Your task to perform on an android device: turn on priority inbox in the gmail app Image 0: 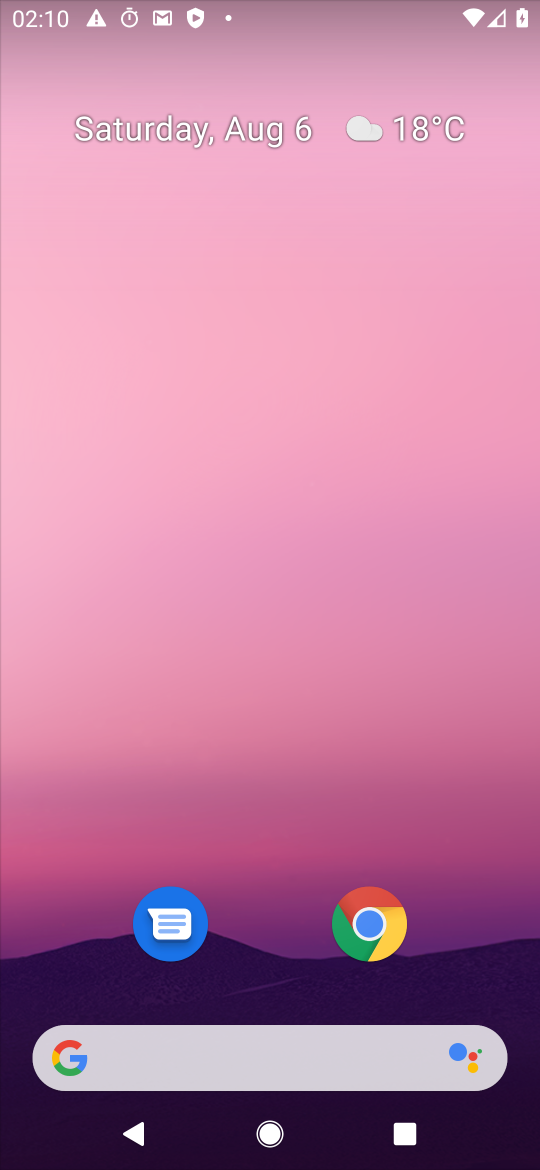
Step 0: drag from (320, 1047) to (464, 84)
Your task to perform on an android device: turn on priority inbox in the gmail app Image 1: 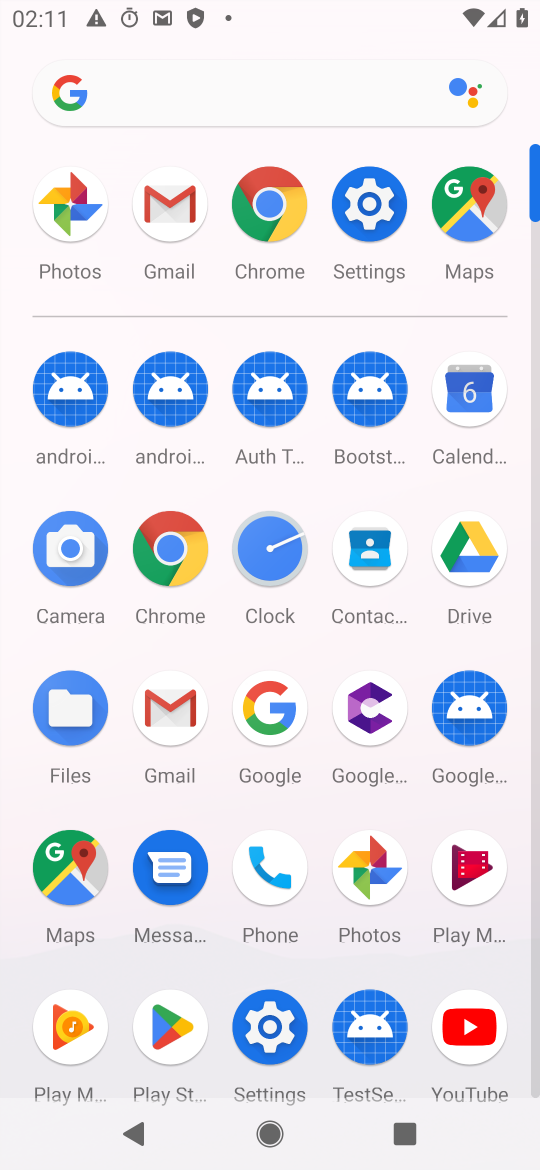
Step 1: click (186, 704)
Your task to perform on an android device: turn on priority inbox in the gmail app Image 2: 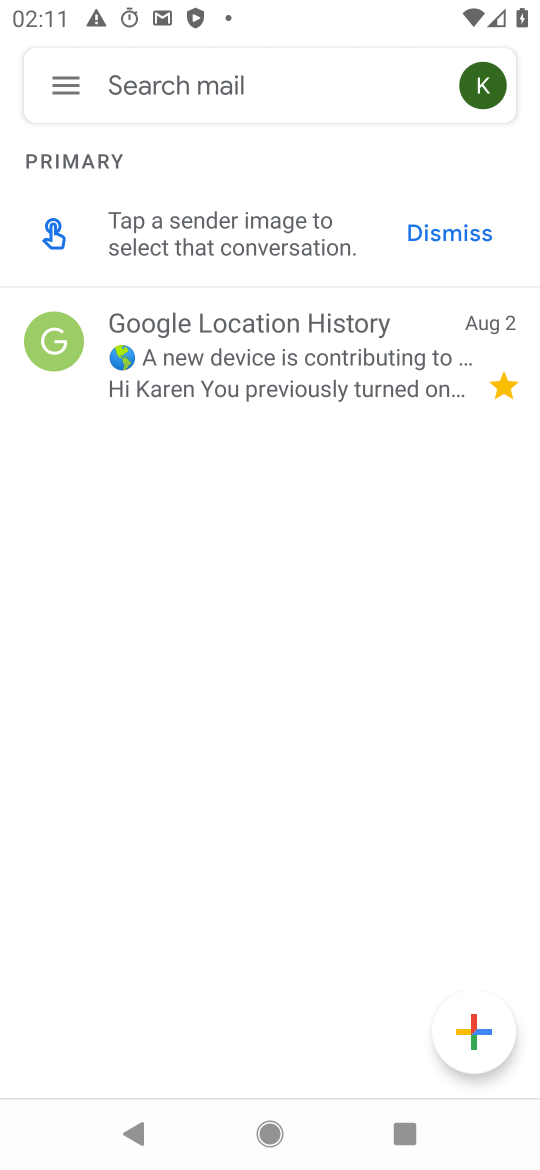
Step 2: click (70, 79)
Your task to perform on an android device: turn on priority inbox in the gmail app Image 3: 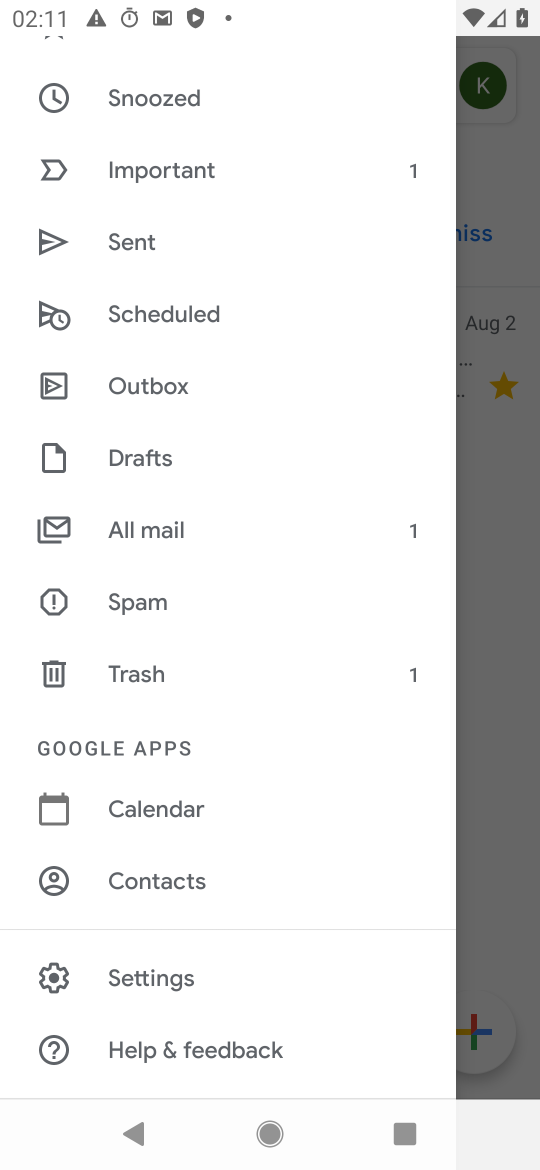
Step 3: click (202, 986)
Your task to perform on an android device: turn on priority inbox in the gmail app Image 4: 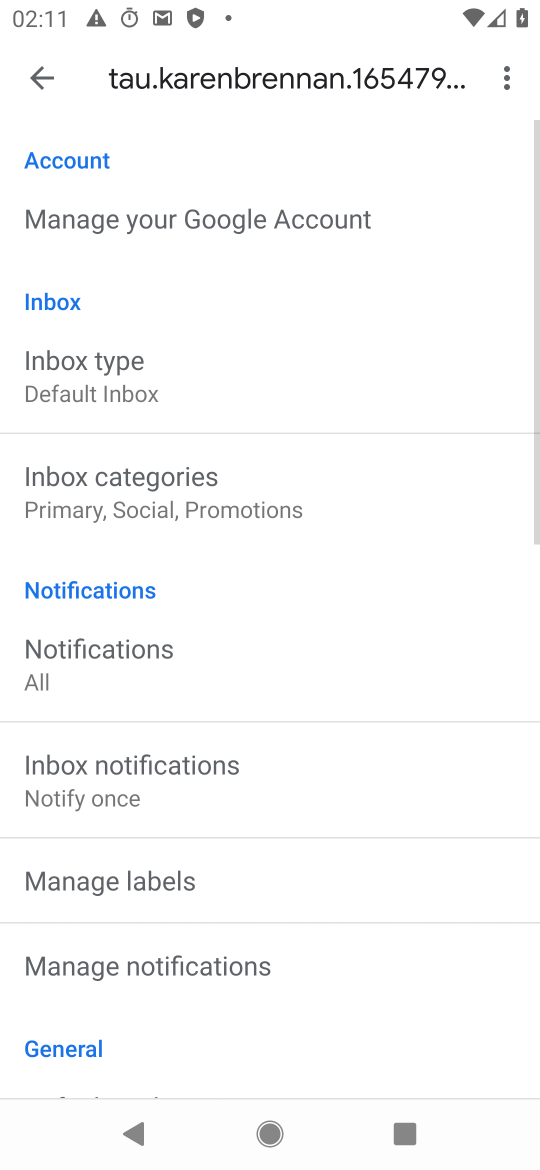
Step 4: click (155, 383)
Your task to perform on an android device: turn on priority inbox in the gmail app Image 5: 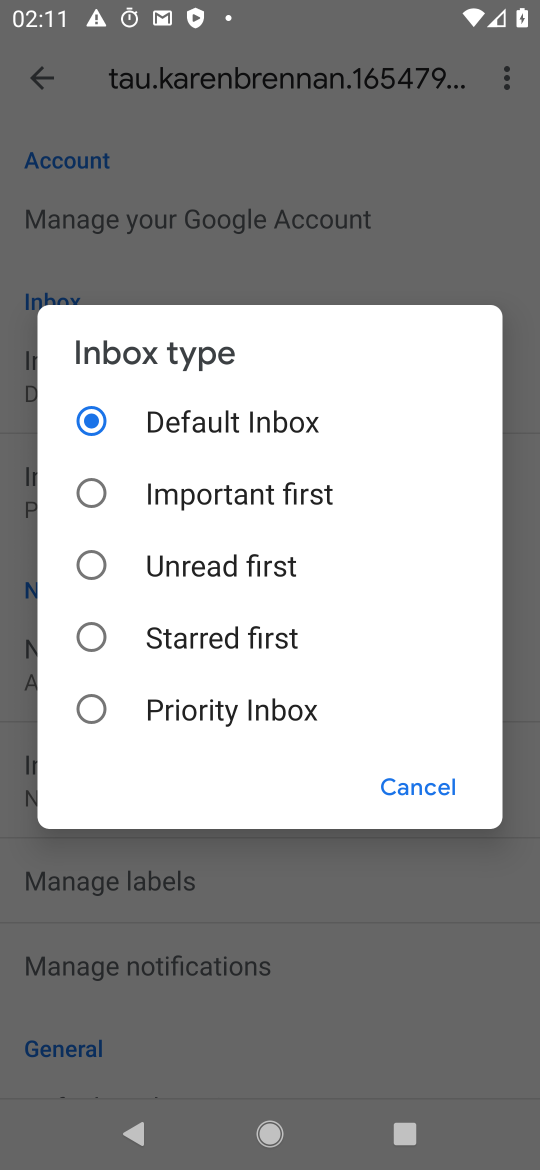
Step 5: click (92, 708)
Your task to perform on an android device: turn on priority inbox in the gmail app Image 6: 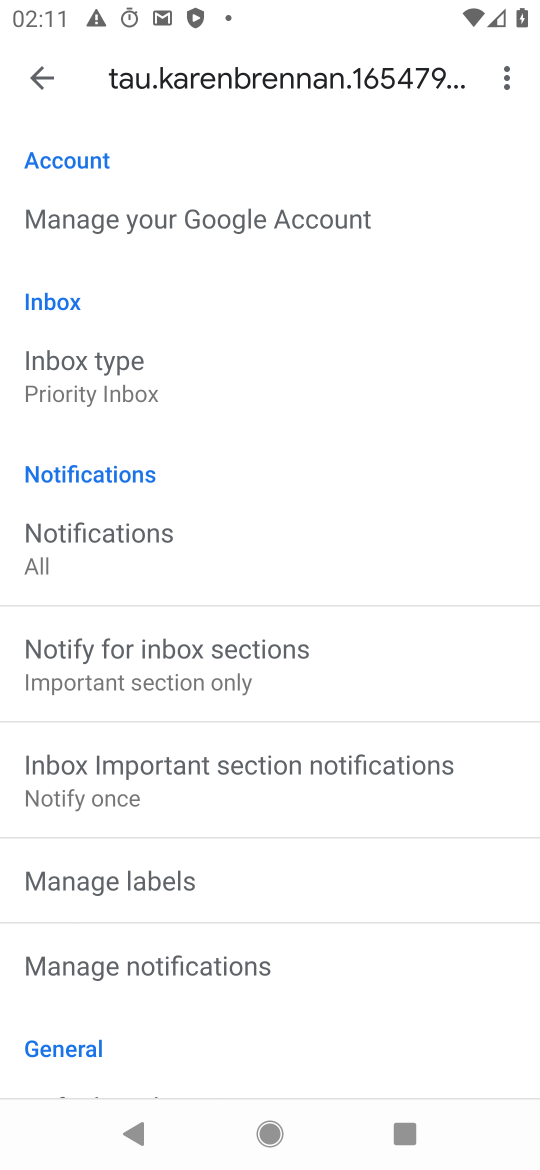
Step 6: task complete